Your task to perform on an android device: empty trash in the gmail app Image 0: 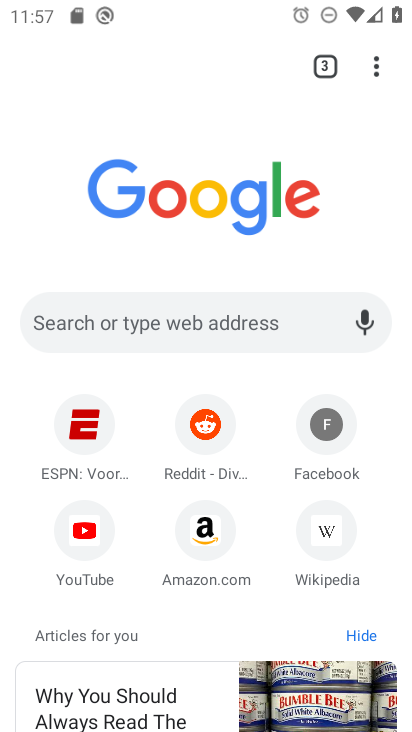
Step 0: press home button
Your task to perform on an android device: empty trash in the gmail app Image 1: 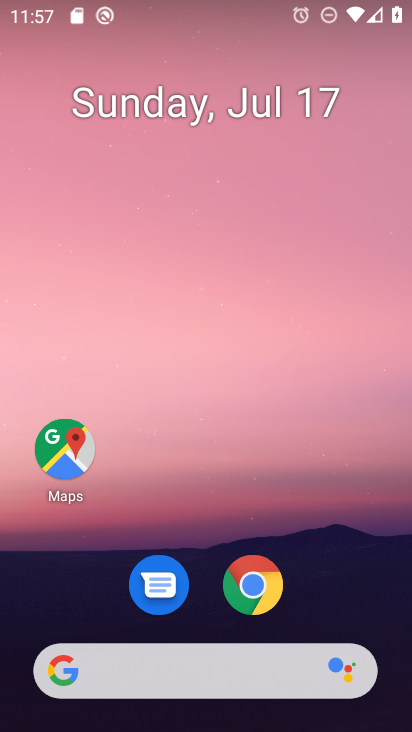
Step 1: drag from (349, 590) to (314, 71)
Your task to perform on an android device: empty trash in the gmail app Image 2: 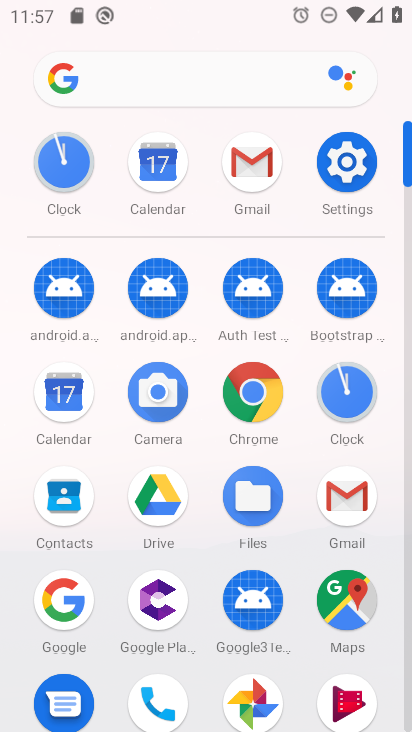
Step 2: click (251, 168)
Your task to perform on an android device: empty trash in the gmail app Image 3: 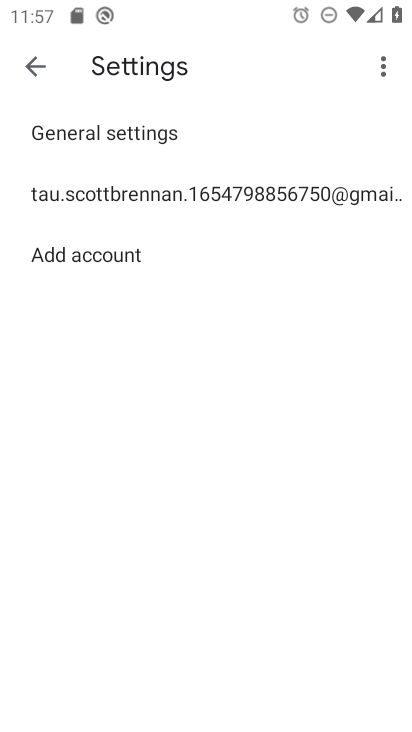
Step 3: click (36, 64)
Your task to perform on an android device: empty trash in the gmail app Image 4: 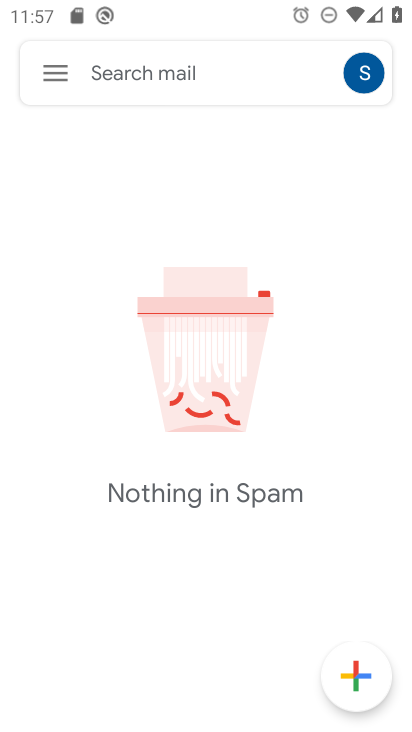
Step 4: click (47, 78)
Your task to perform on an android device: empty trash in the gmail app Image 5: 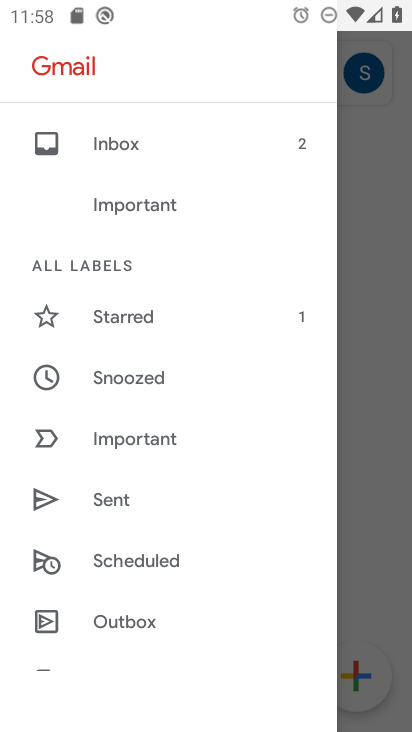
Step 5: drag from (144, 512) to (237, 6)
Your task to perform on an android device: empty trash in the gmail app Image 6: 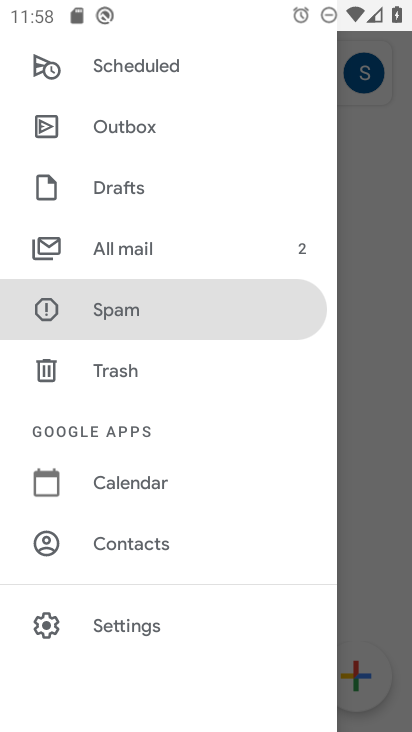
Step 6: click (151, 366)
Your task to perform on an android device: empty trash in the gmail app Image 7: 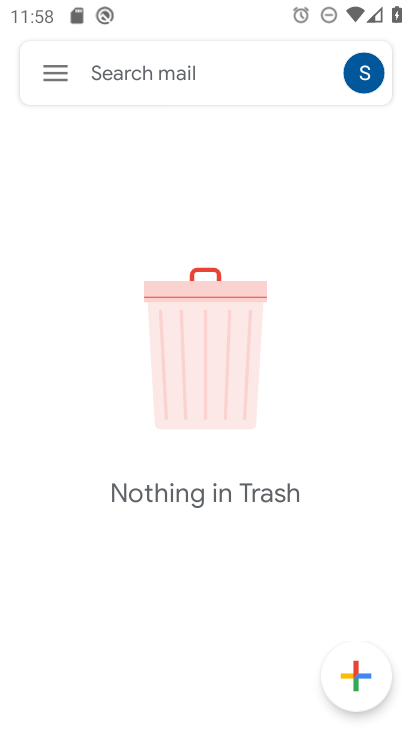
Step 7: task complete